Your task to perform on an android device: open app "Venmo" (install if not already installed) and go to login screen Image 0: 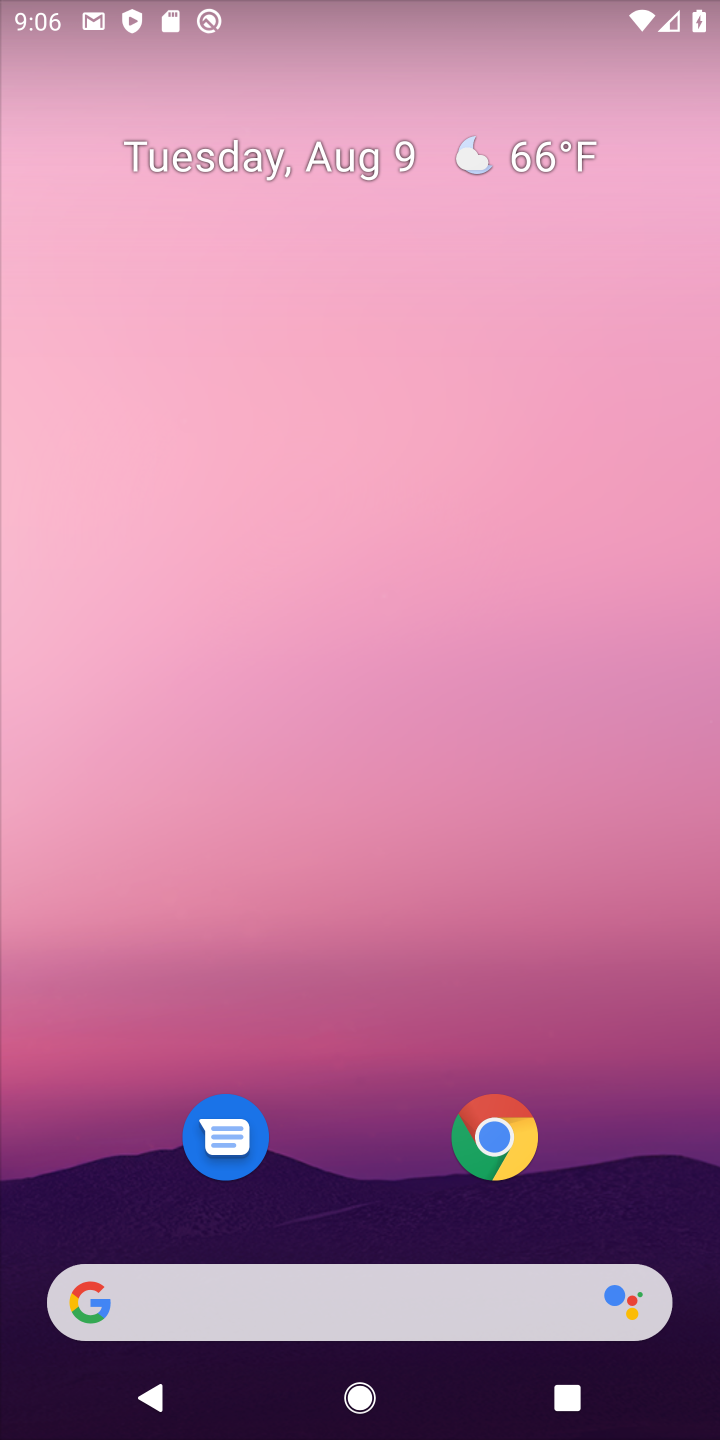
Step 0: drag from (362, 1080) to (362, 179)
Your task to perform on an android device: open app "Venmo" (install if not already installed) and go to login screen Image 1: 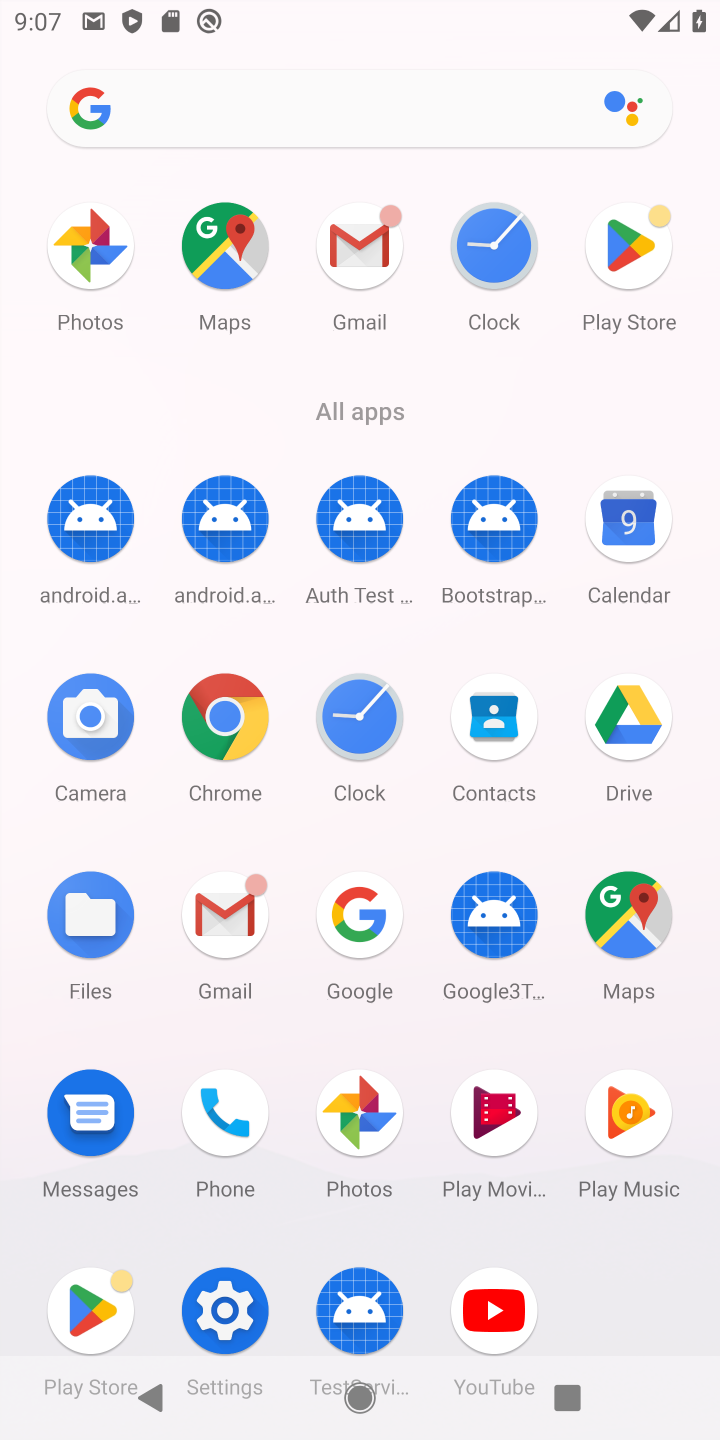
Step 1: click (621, 247)
Your task to perform on an android device: open app "Venmo" (install if not already installed) and go to login screen Image 2: 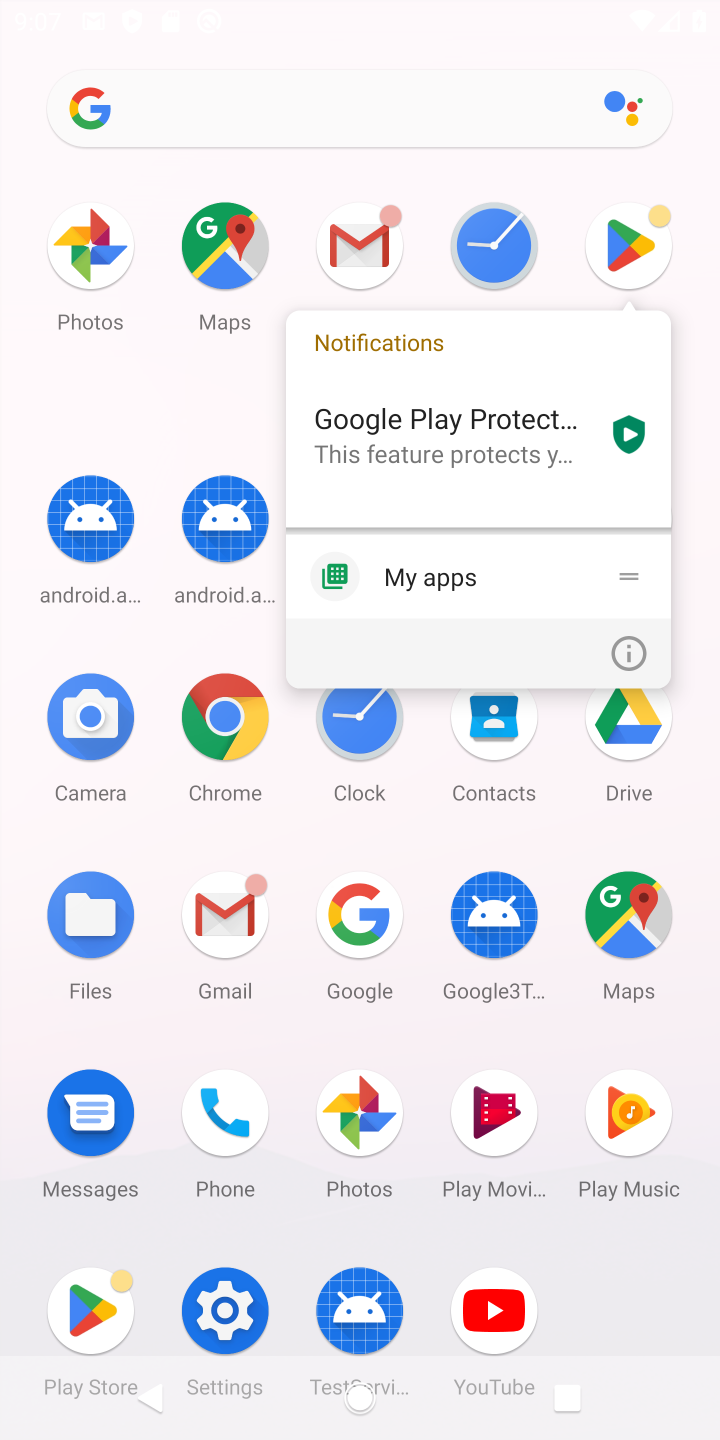
Step 2: click (627, 234)
Your task to perform on an android device: open app "Venmo" (install if not already installed) and go to login screen Image 3: 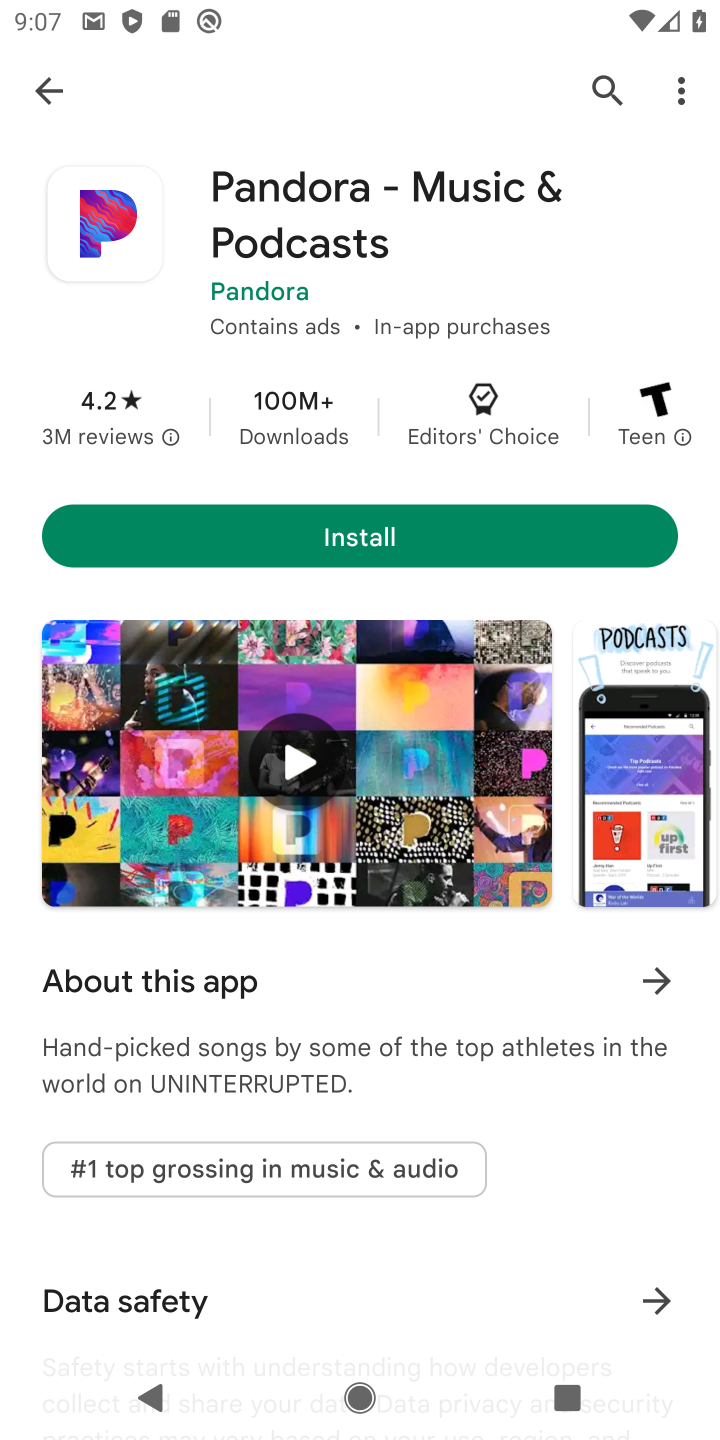
Step 3: click (615, 89)
Your task to perform on an android device: open app "Venmo" (install if not already installed) and go to login screen Image 4: 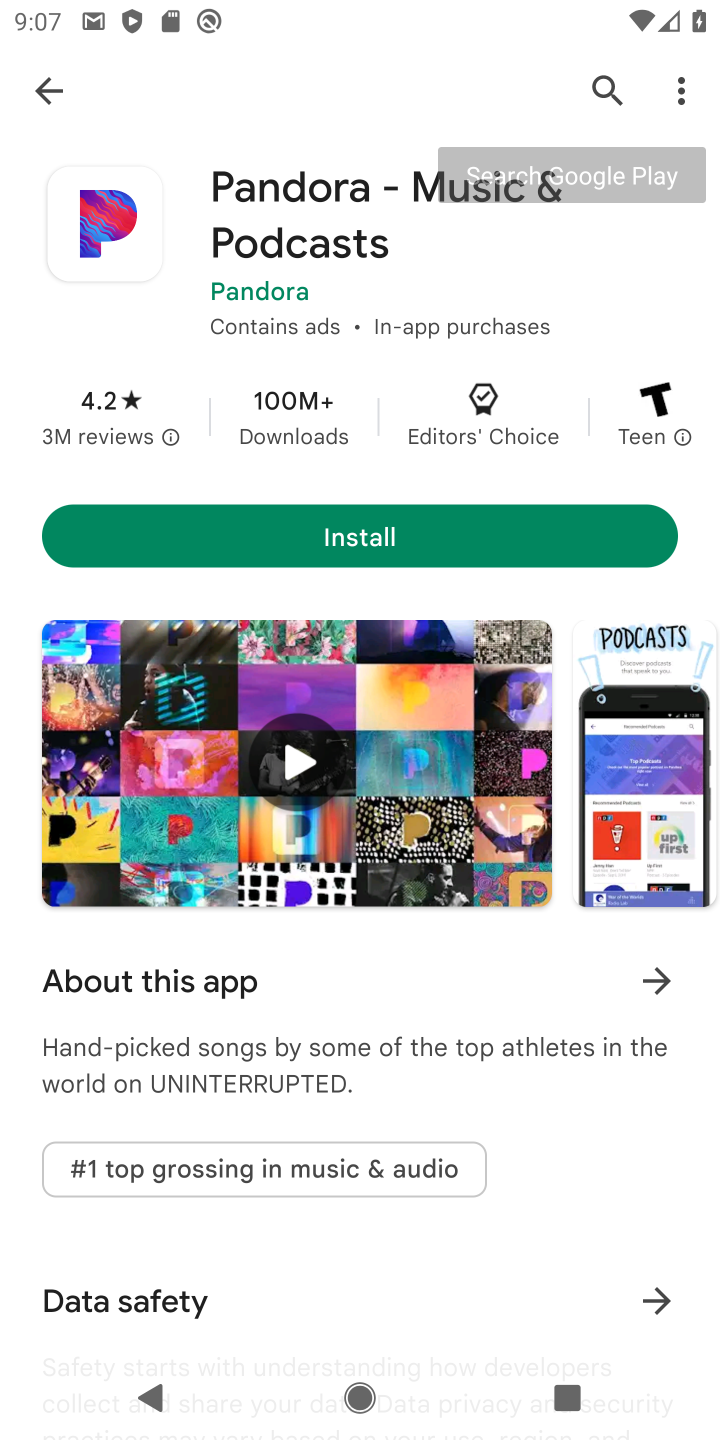
Step 4: click (600, 94)
Your task to perform on an android device: open app "Venmo" (install if not already installed) and go to login screen Image 5: 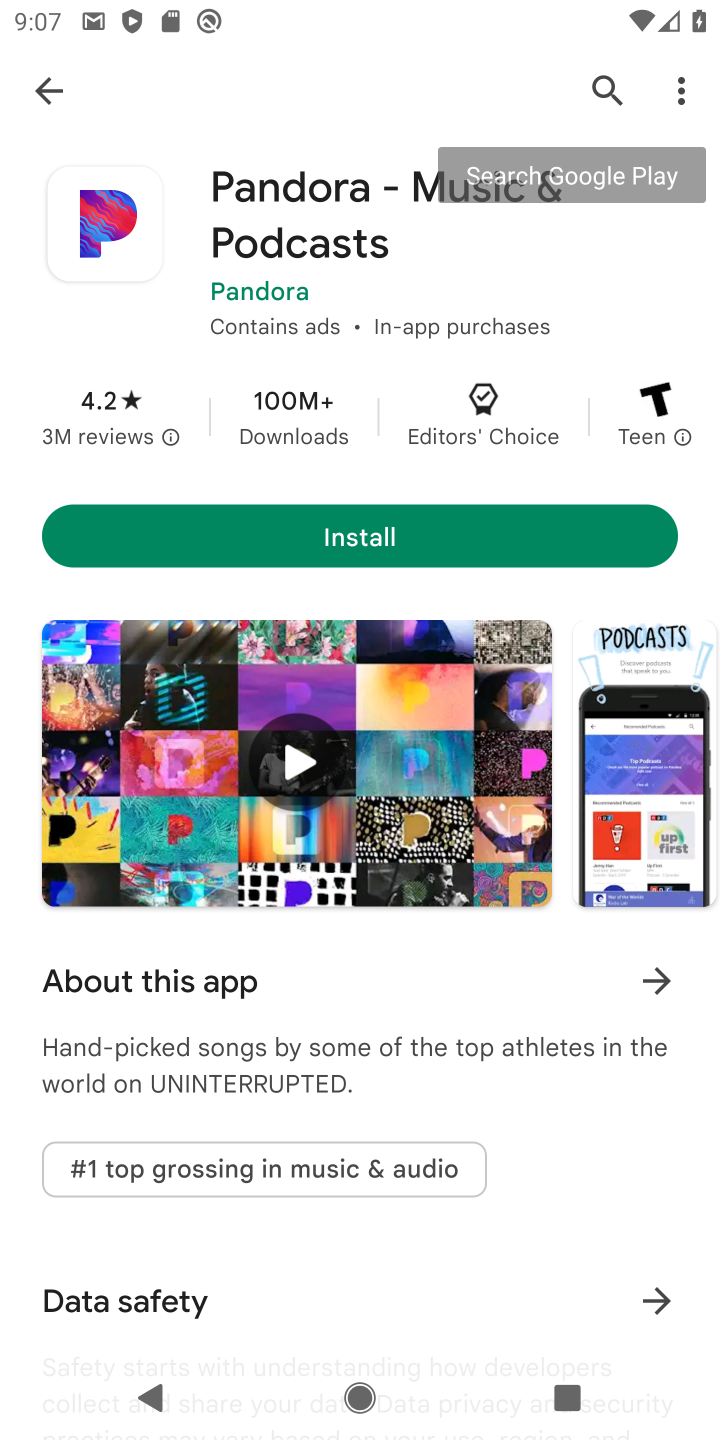
Step 5: click (594, 96)
Your task to perform on an android device: open app "Venmo" (install if not already installed) and go to login screen Image 6: 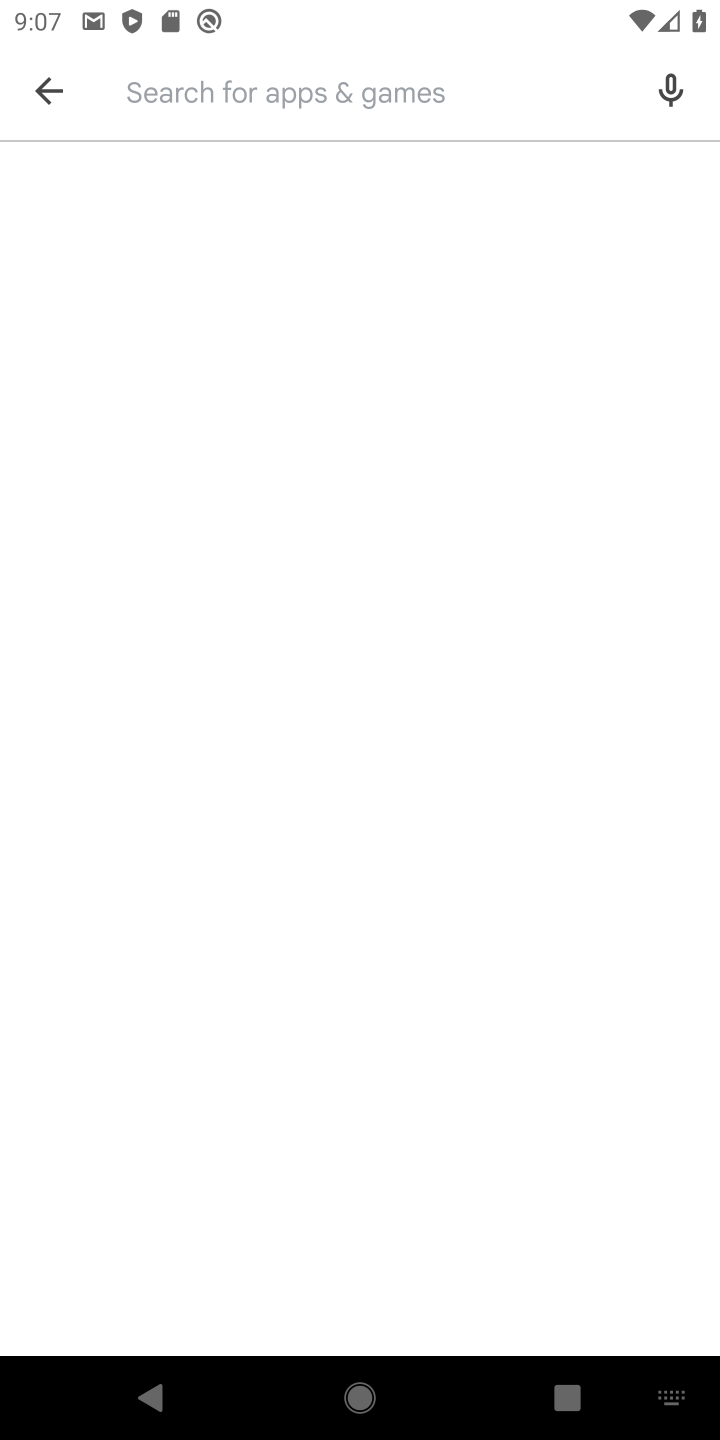
Step 6: type "Venmo"
Your task to perform on an android device: open app "Venmo" (install if not already installed) and go to login screen Image 7: 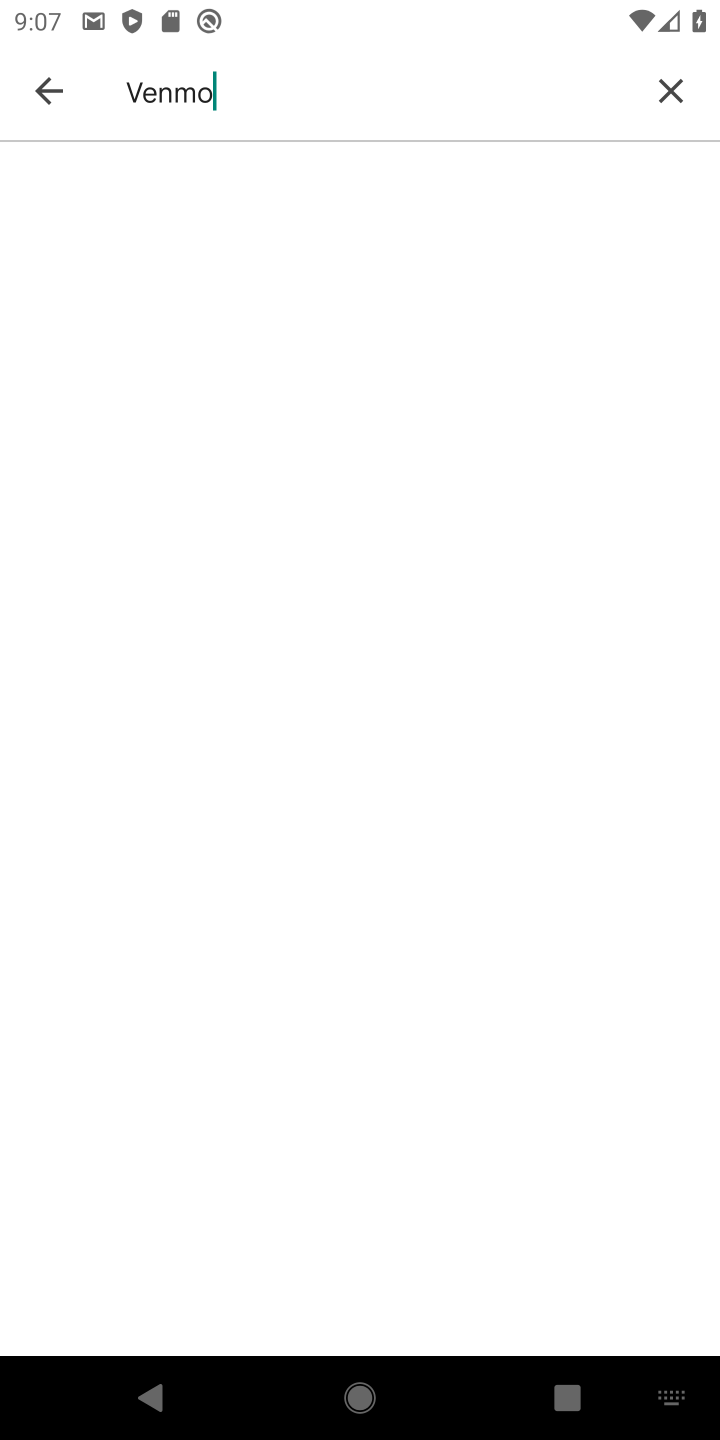
Step 7: type ""
Your task to perform on an android device: open app "Venmo" (install if not already installed) and go to login screen Image 8: 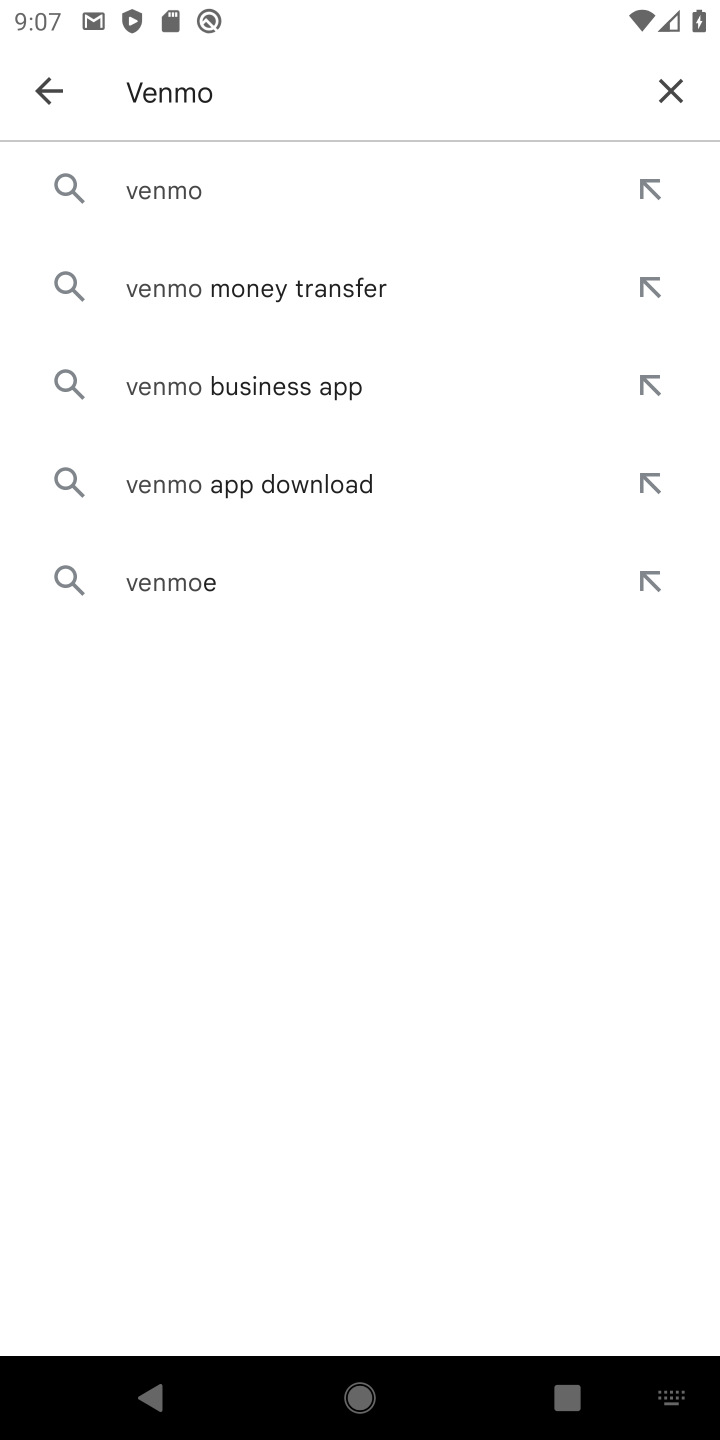
Step 8: click (211, 197)
Your task to perform on an android device: open app "Venmo" (install if not already installed) and go to login screen Image 9: 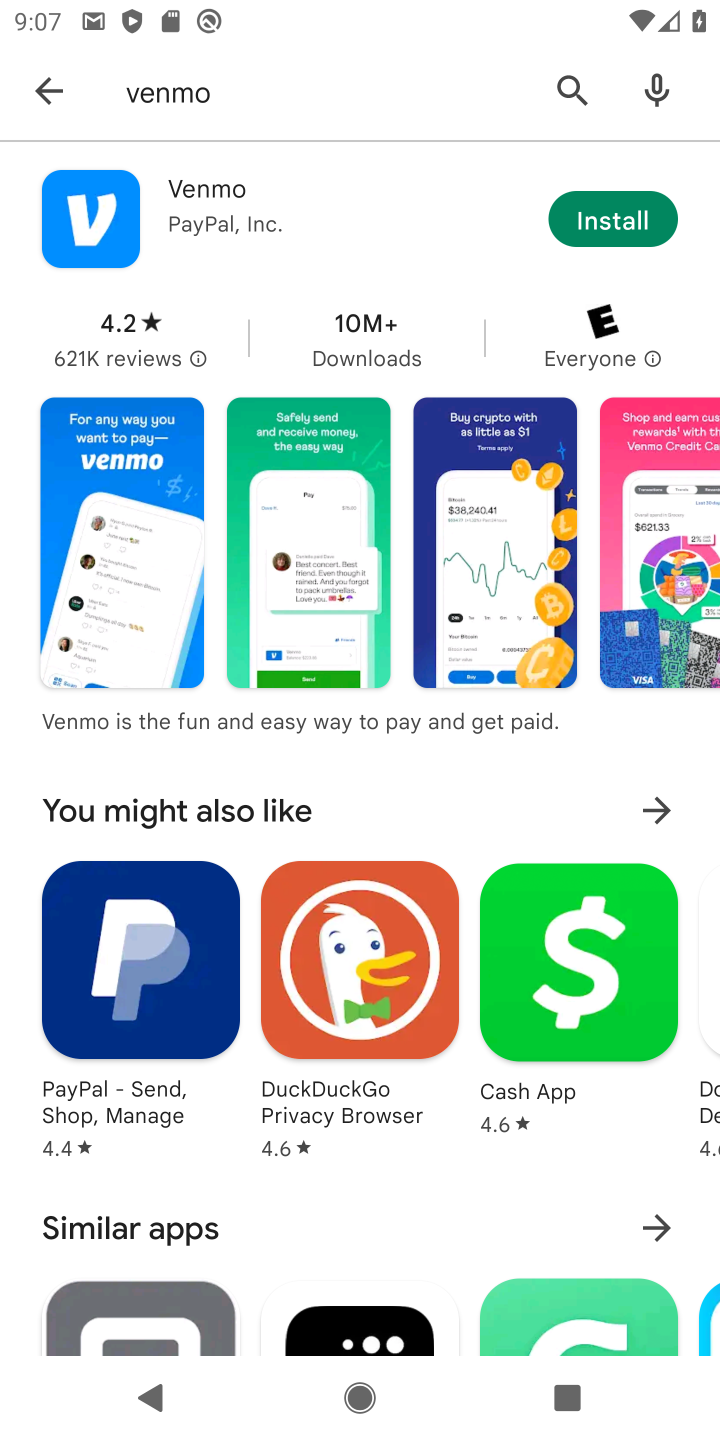
Step 9: click (606, 205)
Your task to perform on an android device: open app "Venmo" (install if not already installed) and go to login screen Image 10: 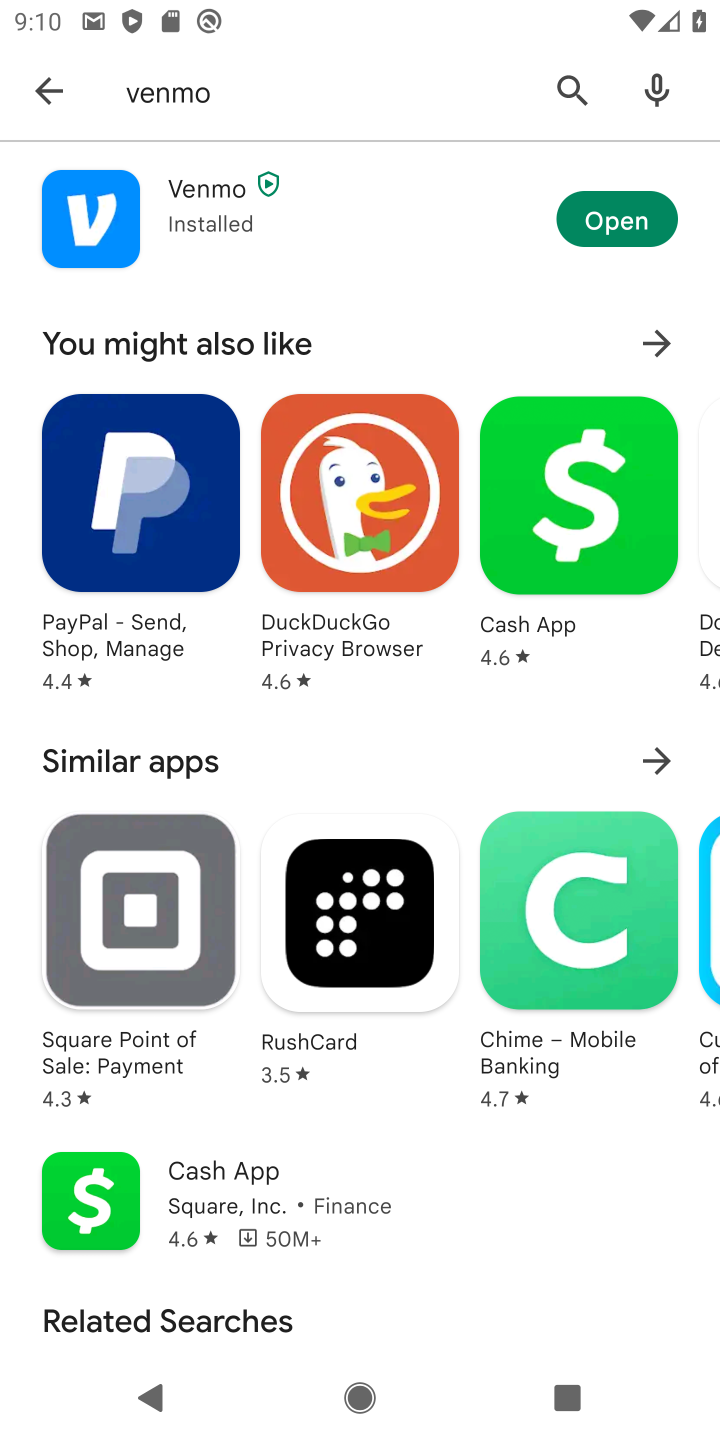
Step 10: click (601, 196)
Your task to perform on an android device: open app "Venmo" (install if not already installed) and go to login screen Image 11: 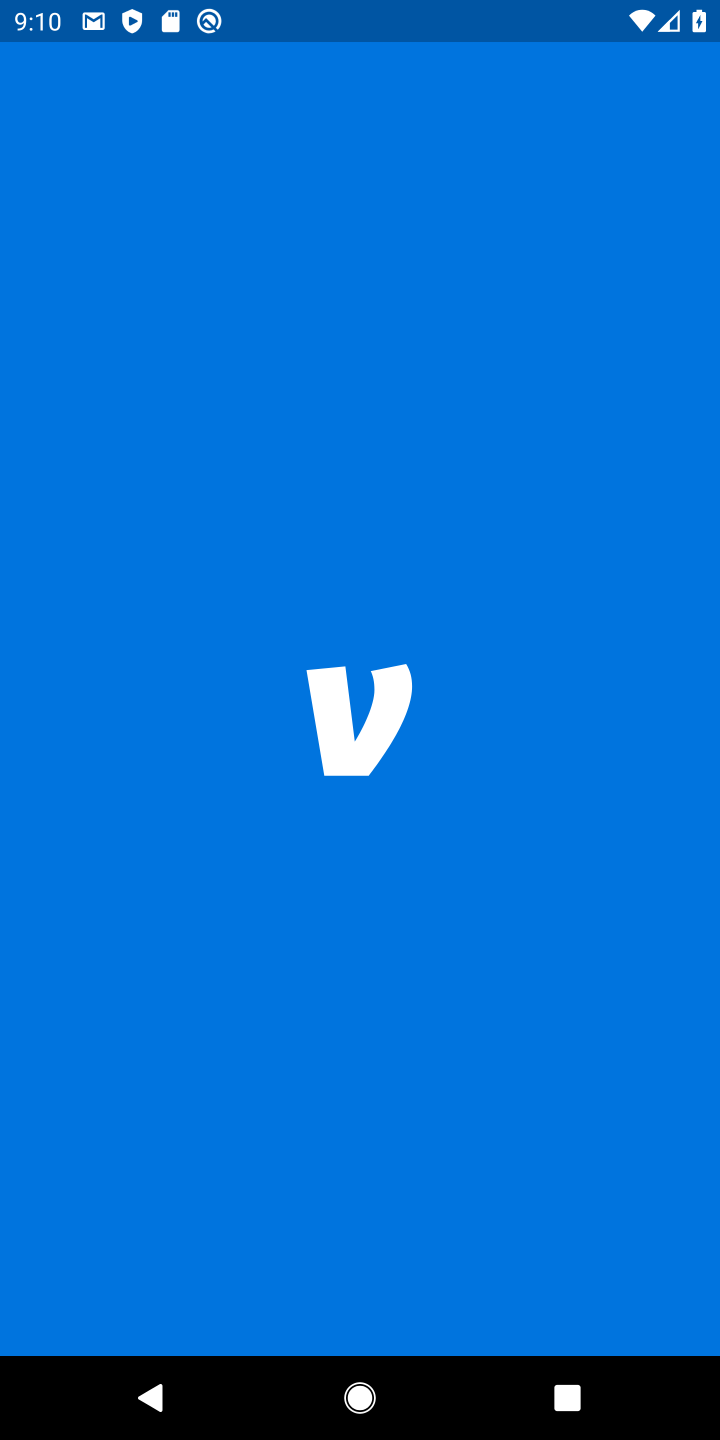
Step 11: task complete